Your task to perform on an android device: Clear the shopping cart on ebay. Image 0: 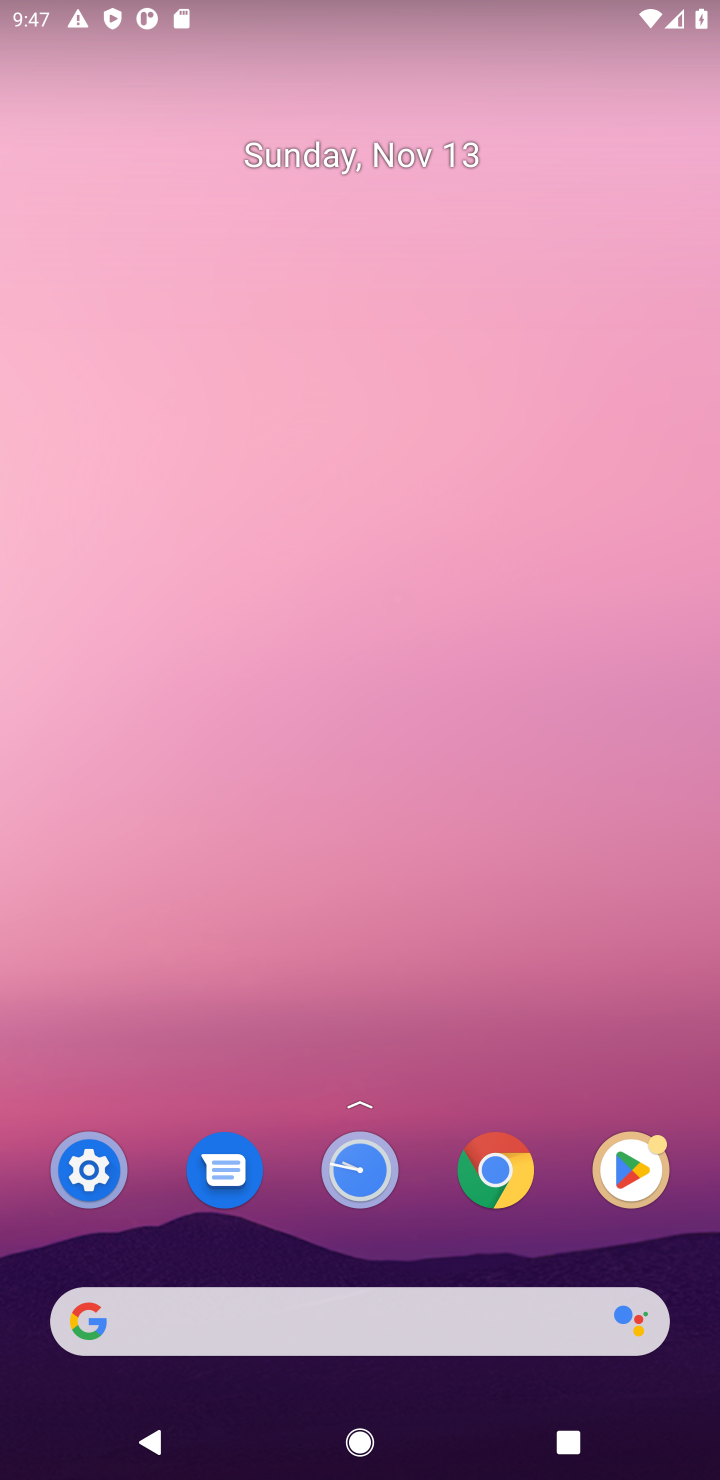
Step 0: click (298, 1303)
Your task to perform on an android device: Clear the shopping cart on ebay. Image 1: 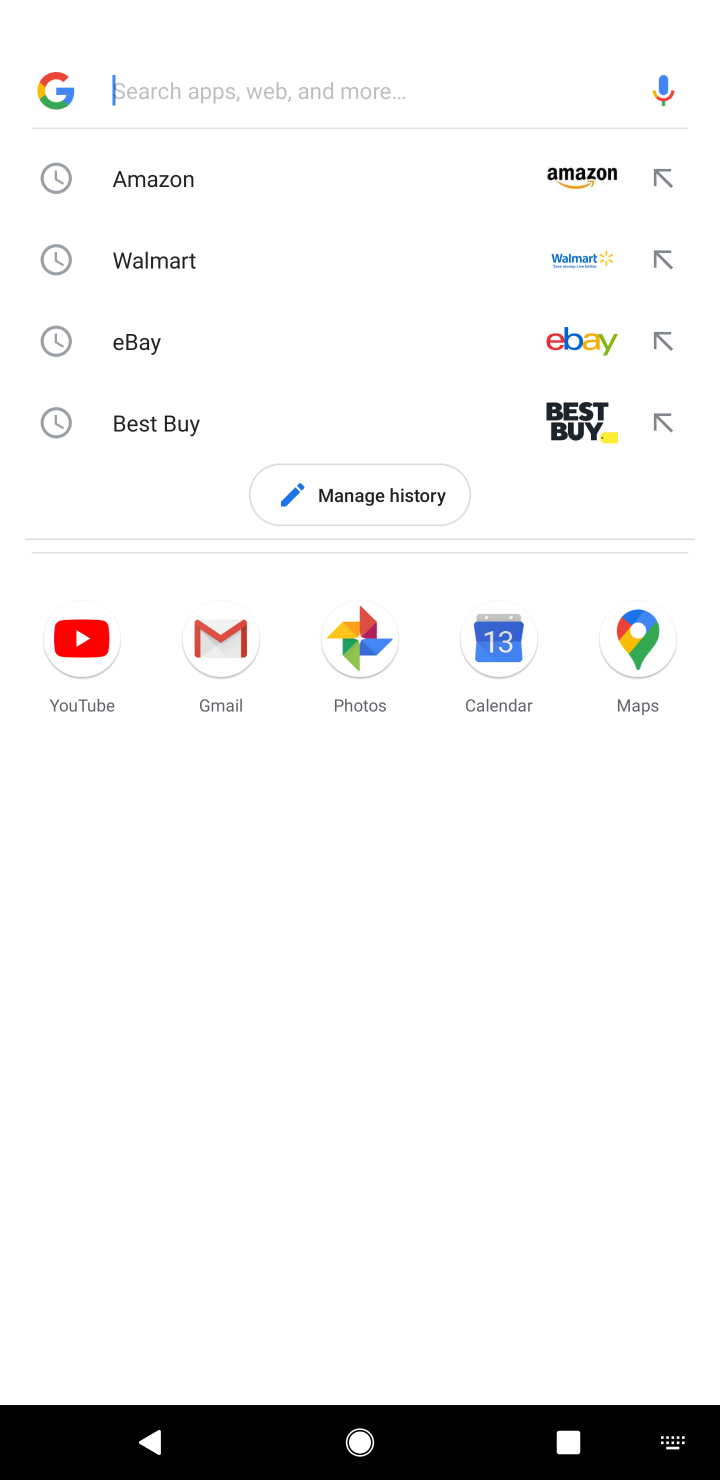
Step 1: click (311, 349)
Your task to perform on an android device: Clear the shopping cart on ebay. Image 2: 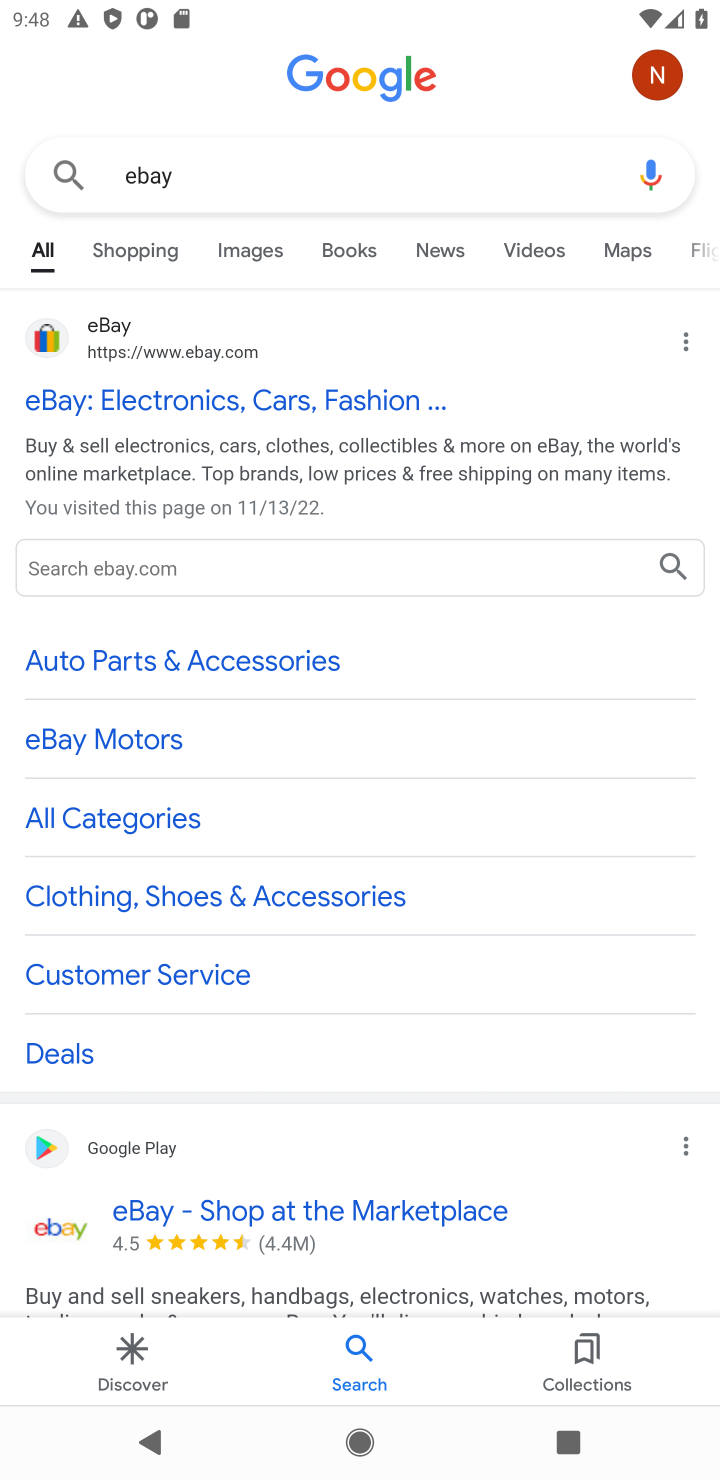
Step 2: click (263, 390)
Your task to perform on an android device: Clear the shopping cart on ebay. Image 3: 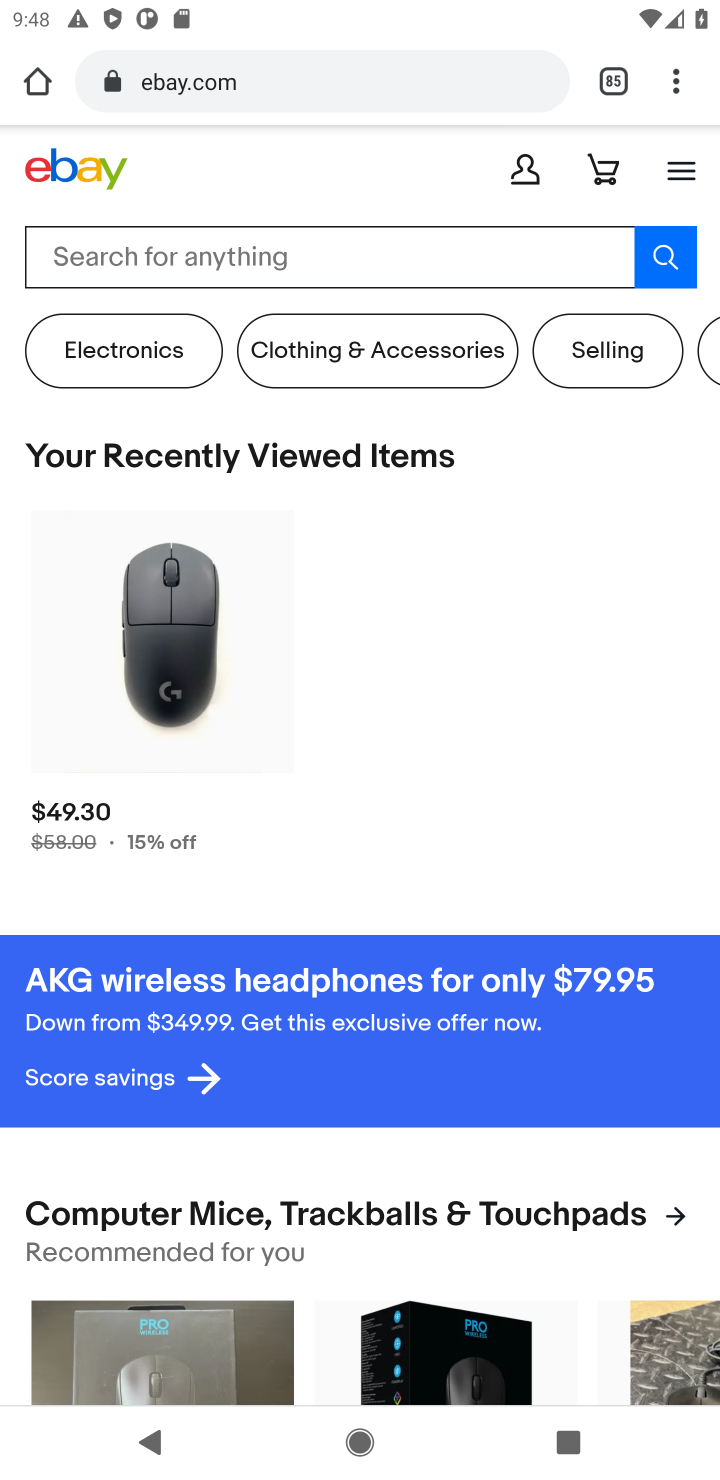
Step 3: click (360, 272)
Your task to perform on an android device: Clear the shopping cart on ebay. Image 4: 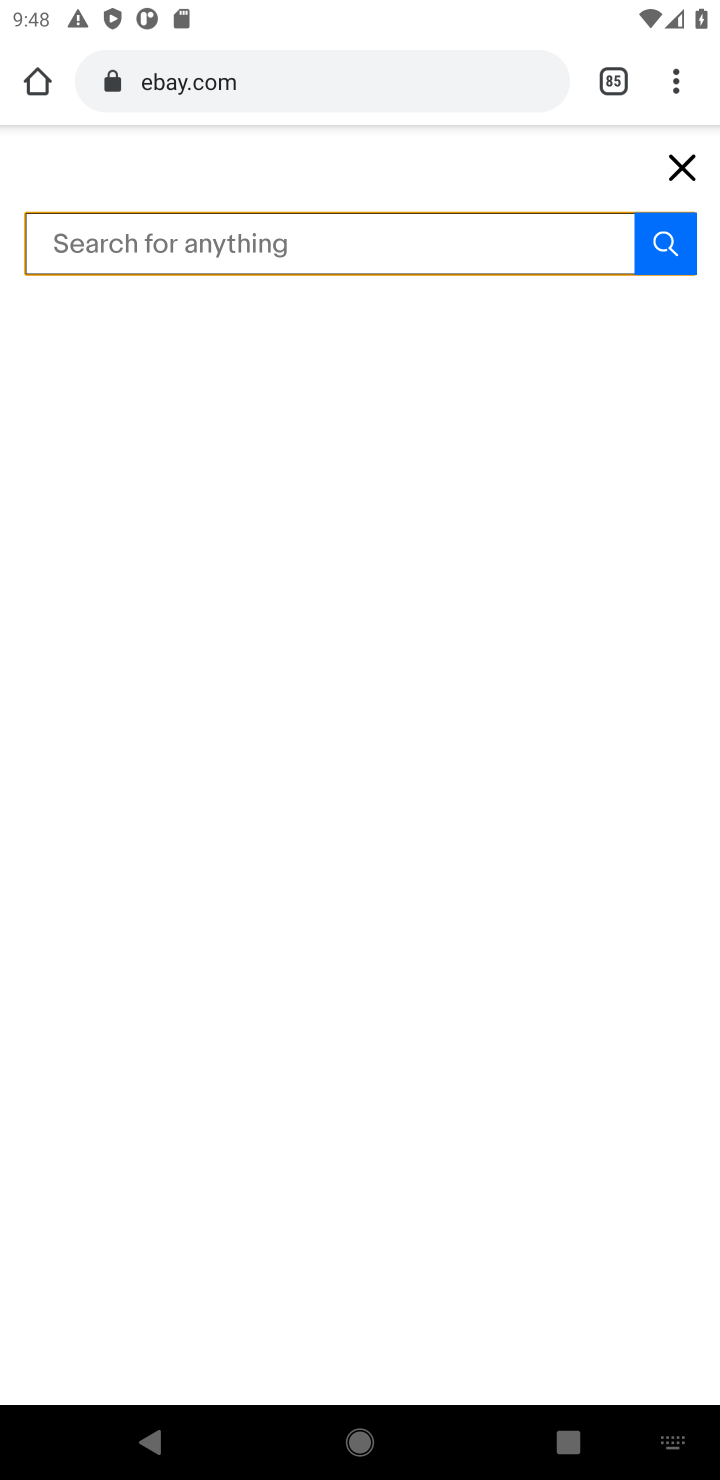
Step 4: task complete